Your task to perform on an android device: open sync settings in chrome Image 0: 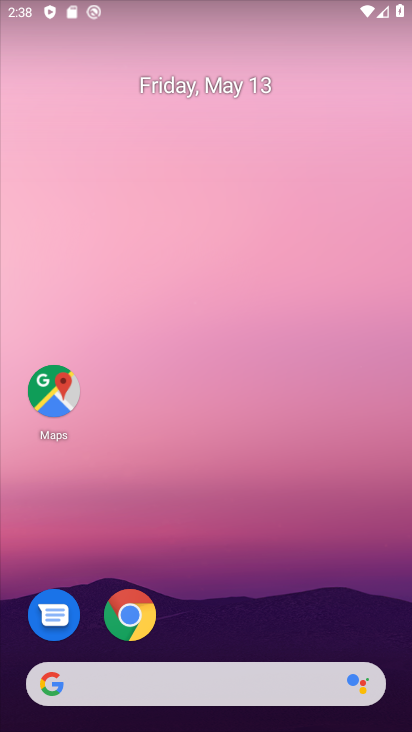
Step 0: click (140, 617)
Your task to perform on an android device: open sync settings in chrome Image 1: 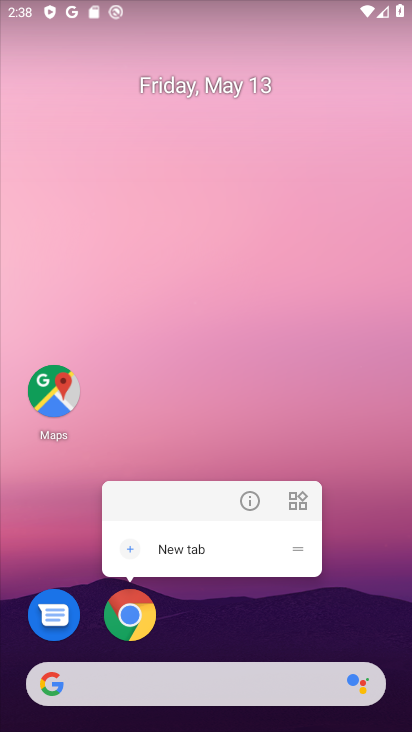
Step 1: click (130, 622)
Your task to perform on an android device: open sync settings in chrome Image 2: 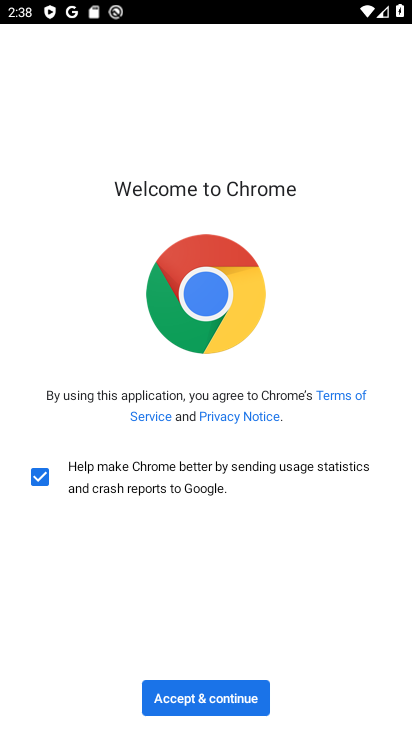
Step 2: click (197, 709)
Your task to perform on an android device: open sync settings in chrome Image 3: 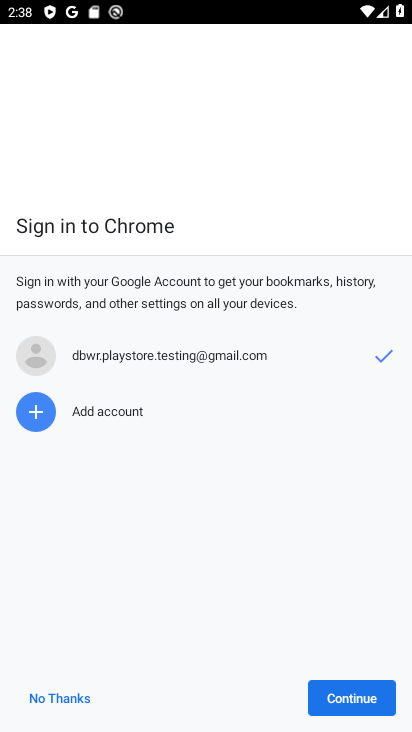
Step 3: click (332, 705)
Your task to perform on an android device: open sync settings in chrome Image 4: 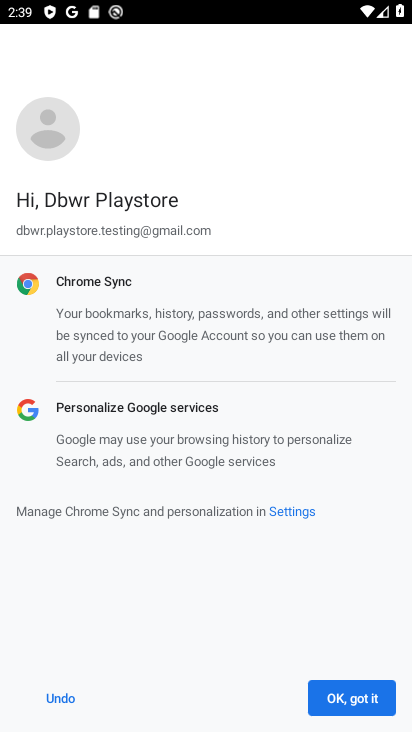
Step 4: click (344, 695)
Your task to perform on an android device: open sync settings in chrome Image 5: 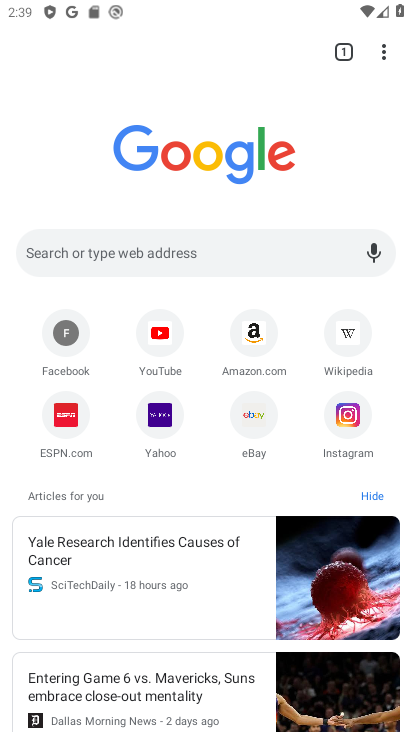
Step 5: drag from (390, 59) to (254, 443)
Your task to perform on an android device: open sync settings in chrome Image 6: 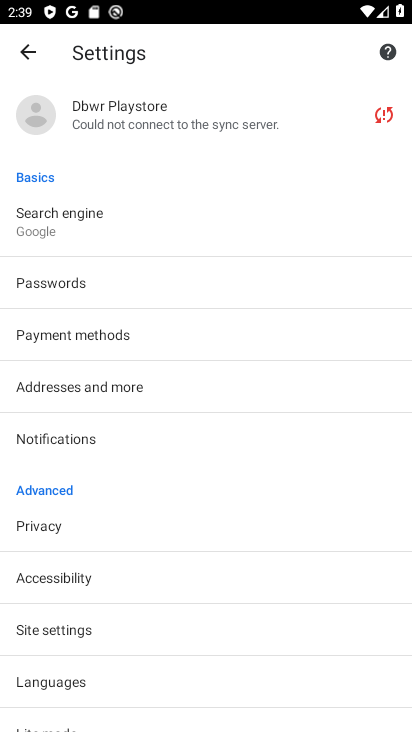
Step 6: click (129, 126)
Your task to perform on an android device: open sync settings in chrome Image 7: 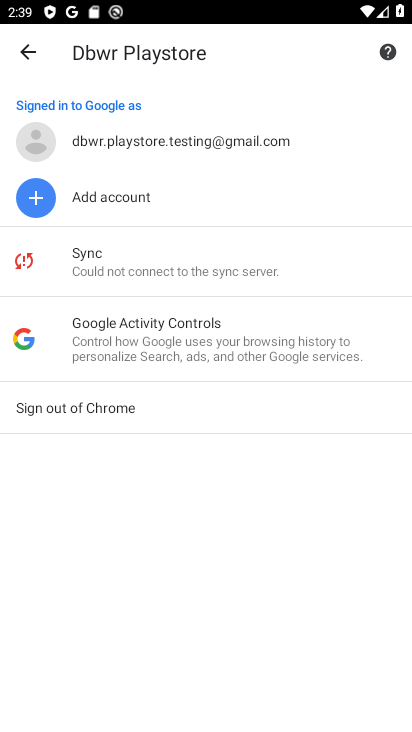
Step 7: click (181, 275)
Your task to perform on an android device: open sync settings in chrome Image 8: 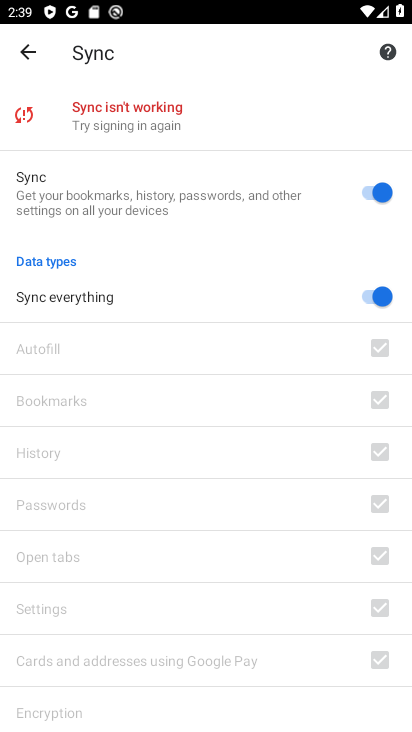
Step 8: task complete